Your task to perform on an android device: Open the web browser Image 0: 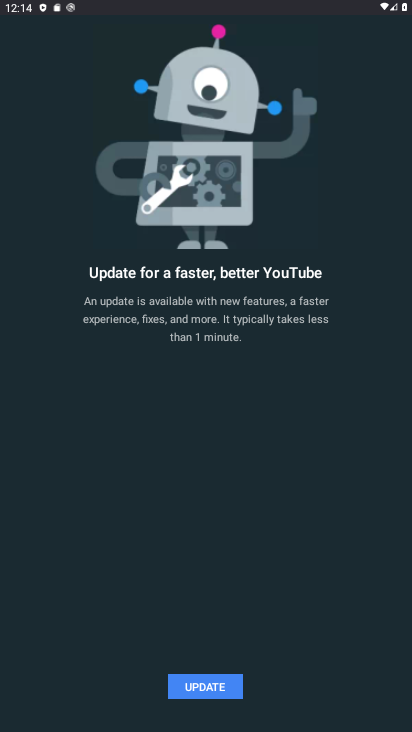
Step 0: press back button
Your task to perform on an android device: Open the web browser Image 1: 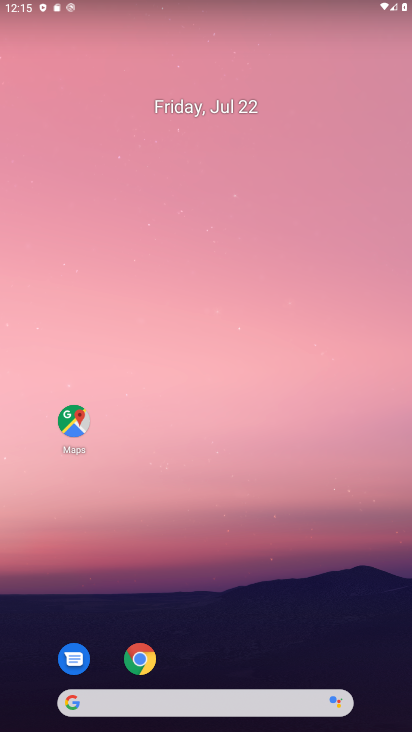
Step 1: click (140, 651)
Your task to perform on an android device: Open the web browser Image 2: 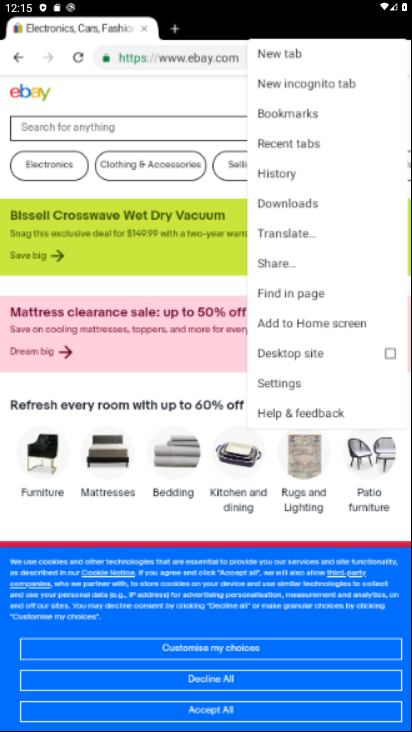
Step 2: task complete